Your task to perform on an android device: install app "Google Play Games" Image 0: 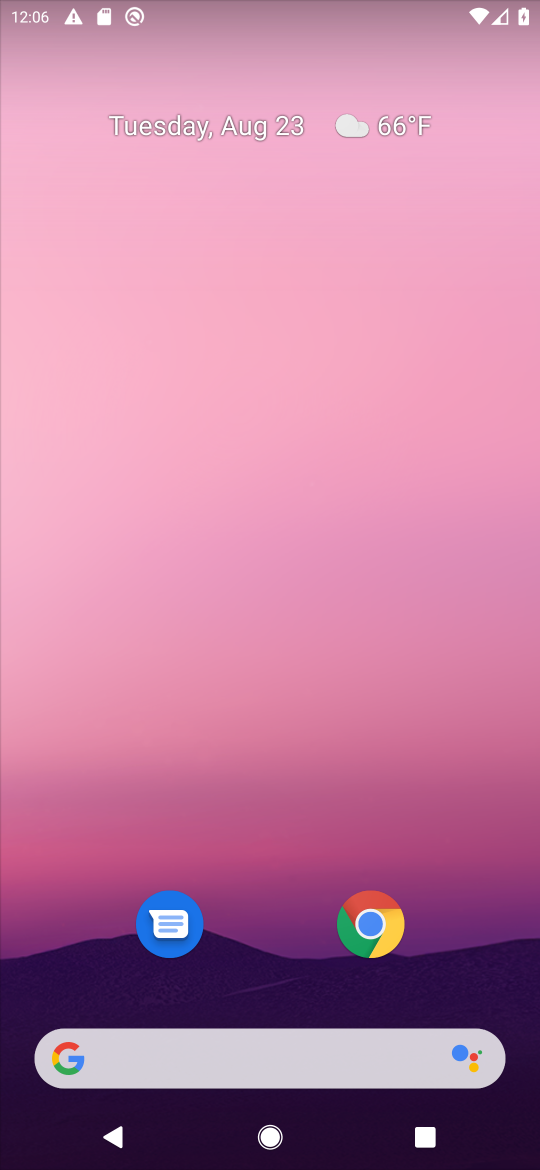
Step 0: press home button
Your task to perform on an android device: install app "Google Play Games" Image 1: 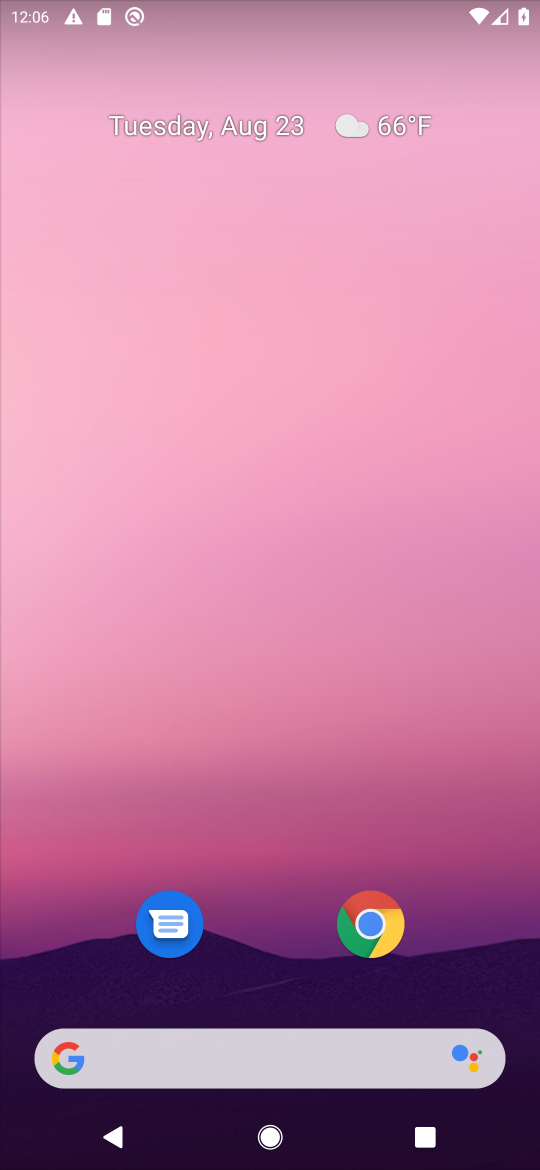
Step 1: drag from (439, 984) to (419, 102)
Your task to perform on an android device: install app "Google Play Games" Image 2: 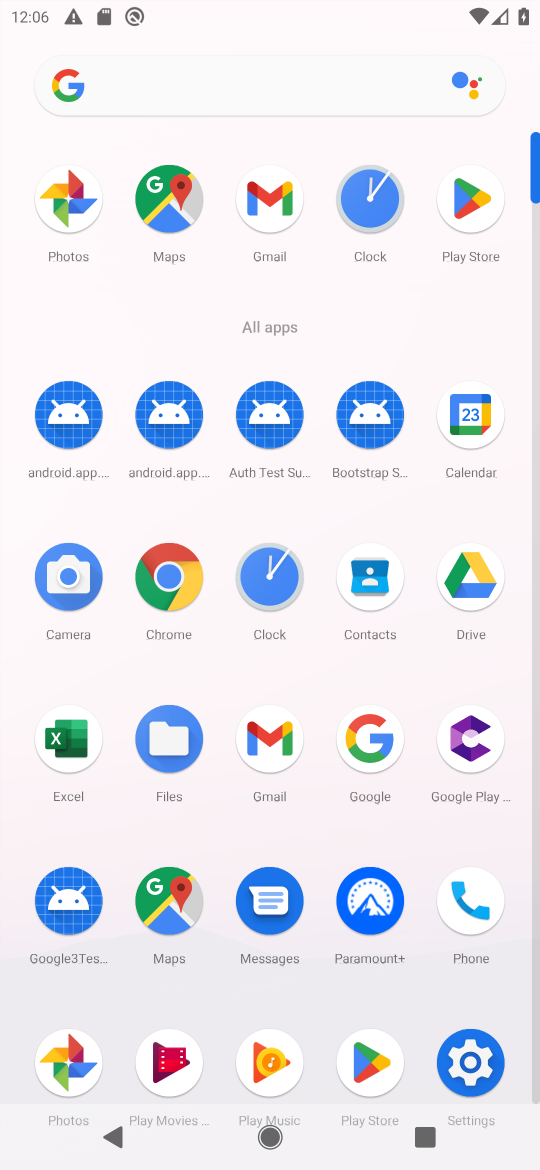
Step 2: click (459, 190)
Your task to perform on an android device: install app "Google Play Games" Image 3: 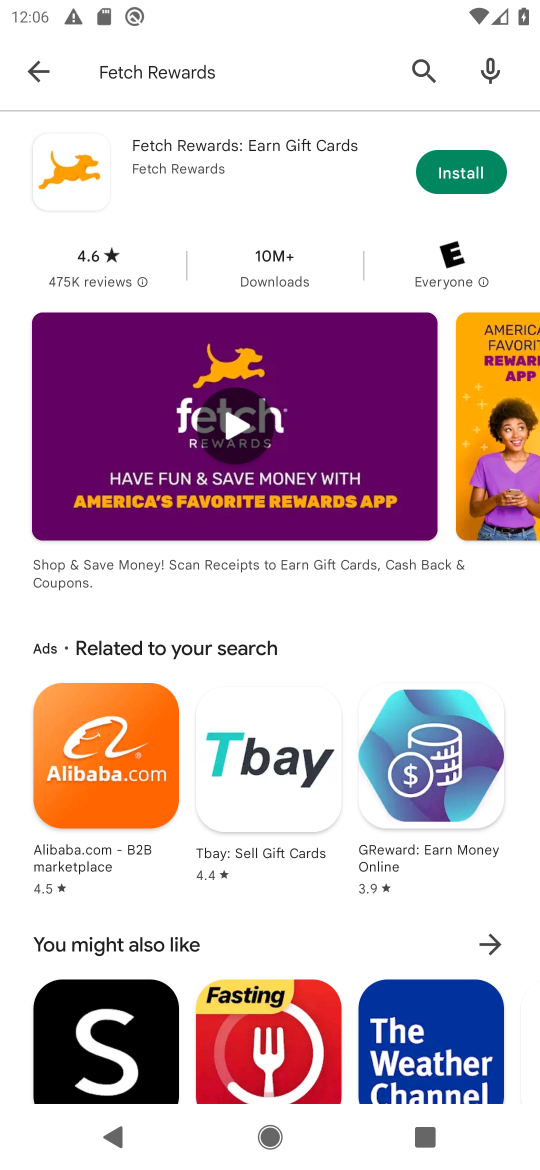
Step 3: press back button
Your task to perform on an android device: install app "Google Play Games" Image 4: 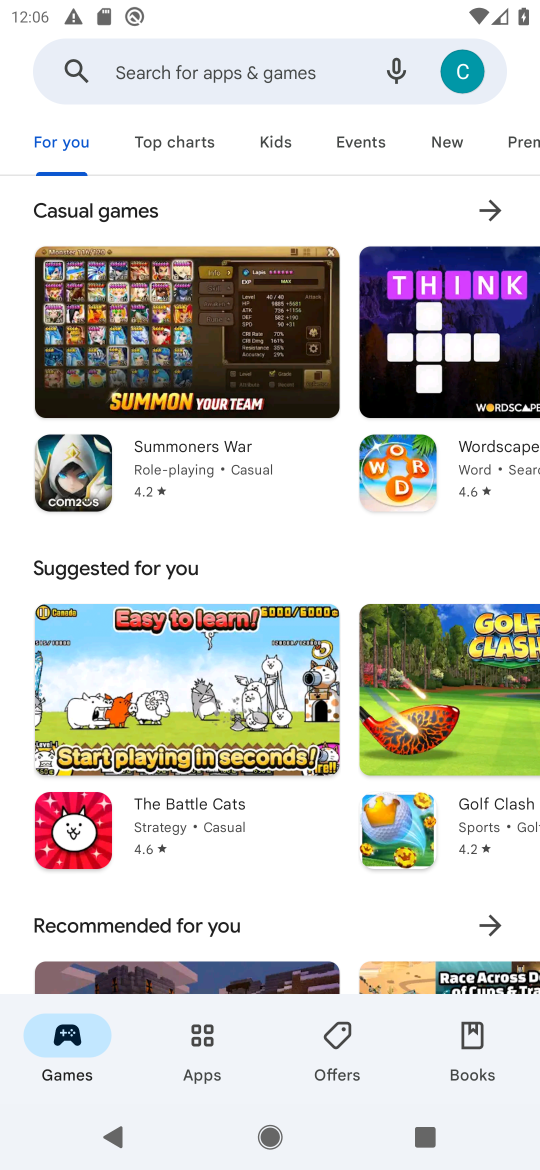
Step 4: click (276, 65)
Your task to perform on an android device: install app "Google Play Games" Image 5: 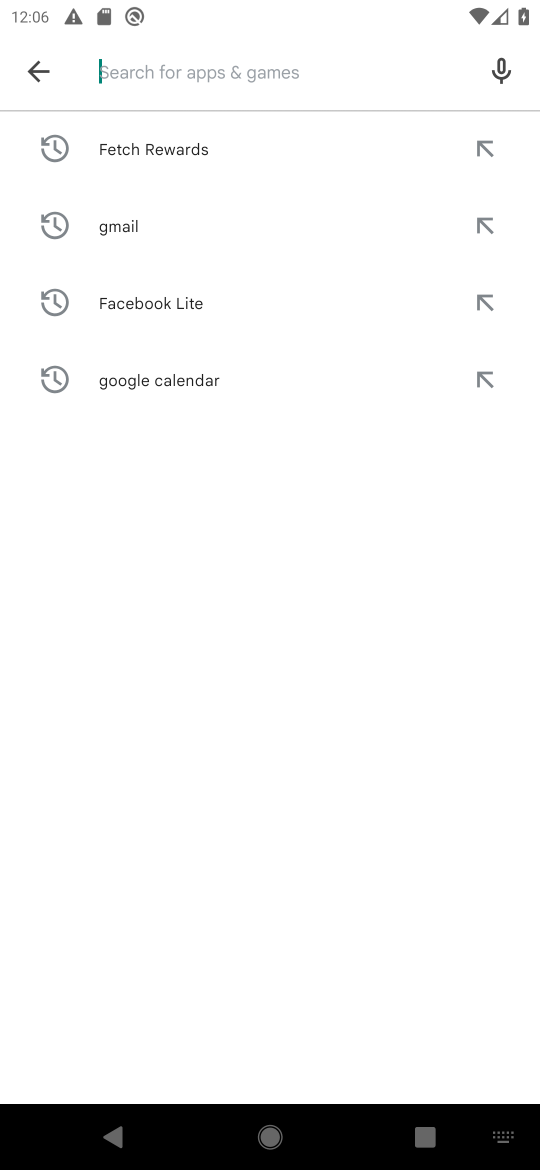
Step 5: type "Google Play Games"
Your task to perform on an android device: install app "Google Play Games" Image 6: 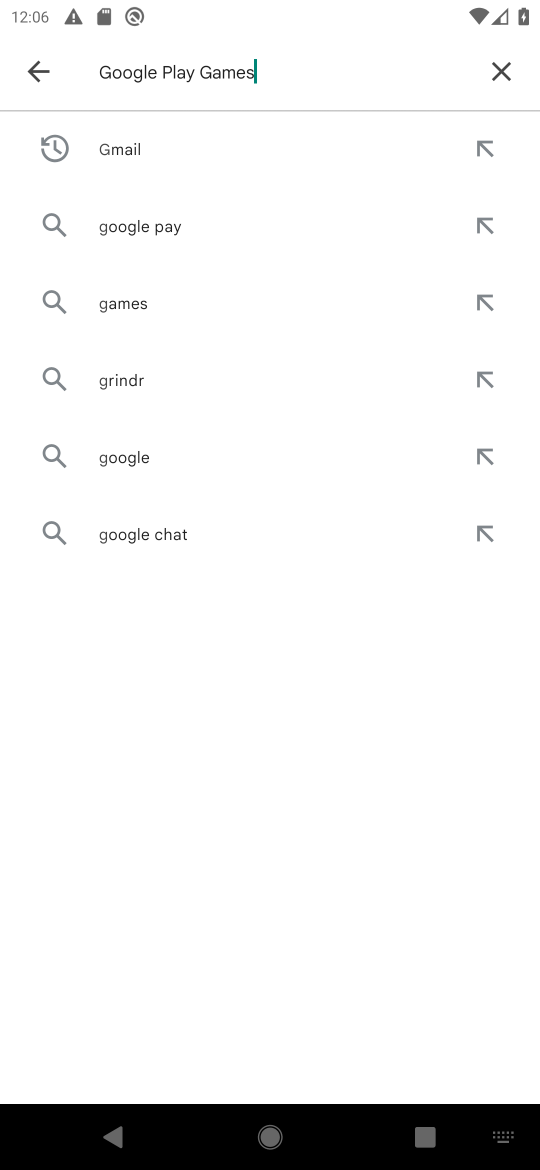
Step 6: press enter
Your task to perform on an android device: install app "Google Play Games" Image 7: 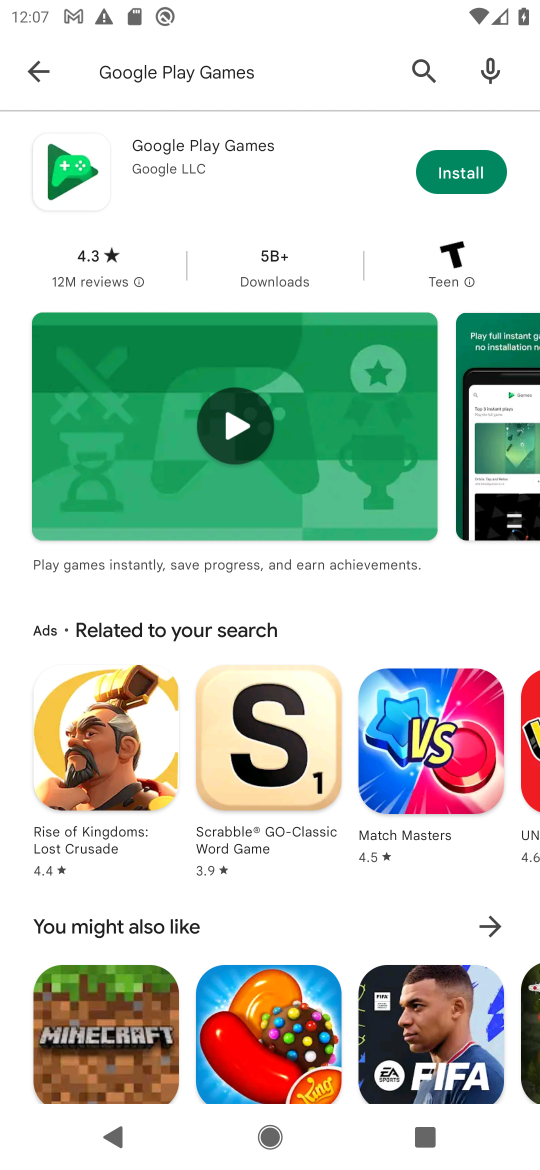
Step 7: click (466, 174)
Your task to perform on an android device: install app "Google Play Games" Image 8: 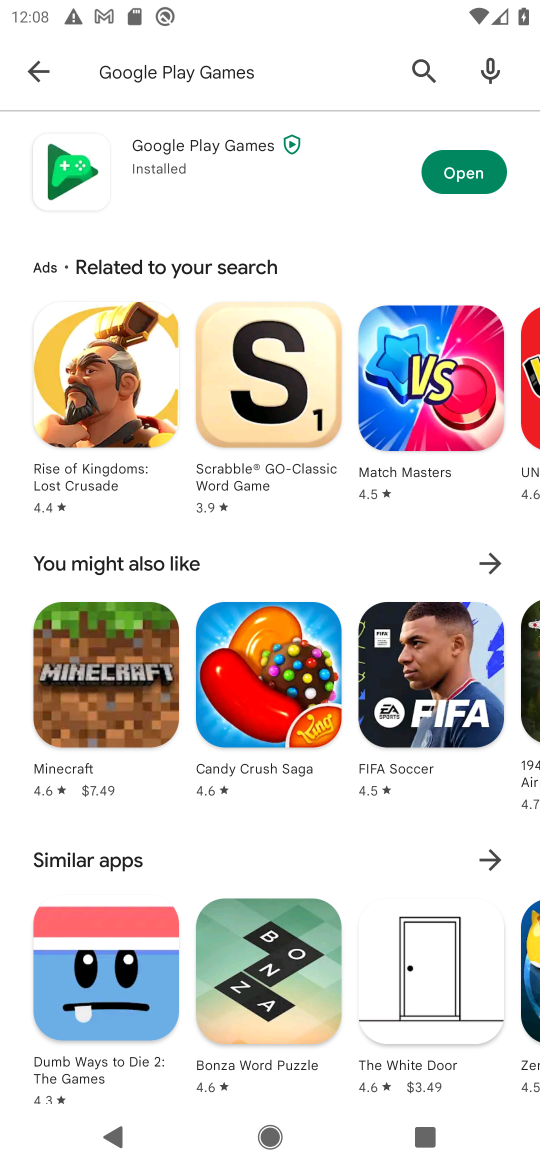
Step 8: task complete